Your task to perform on an android device: What's the weather today? Image 0: 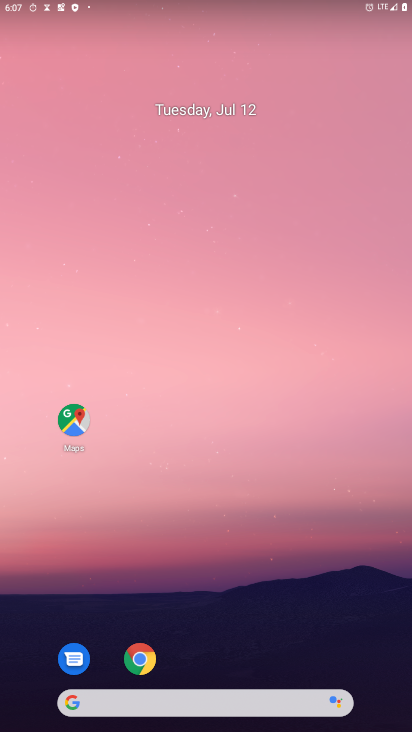
Step 0: click (226, 700)
Your task to perform on an android device: What's the weather today? Image 1: 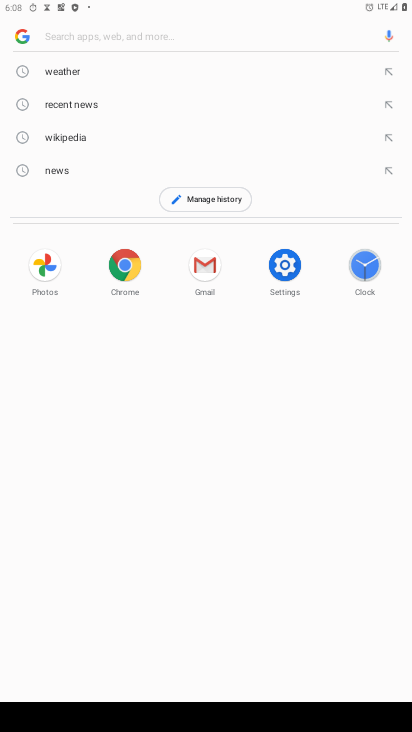
Step 1: click (67, 62)
Your task to perform on an android device: What's the weather today? Image 2: 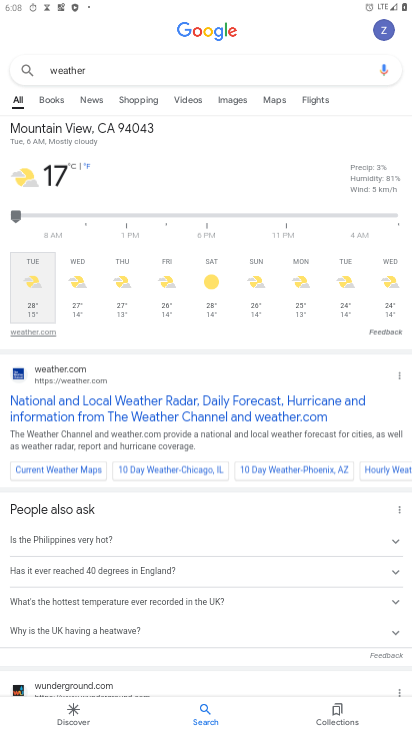
Step 2: task complete